Your task to perform on an android device: uninstall "eBay: The shopping marketplace" Image 0: 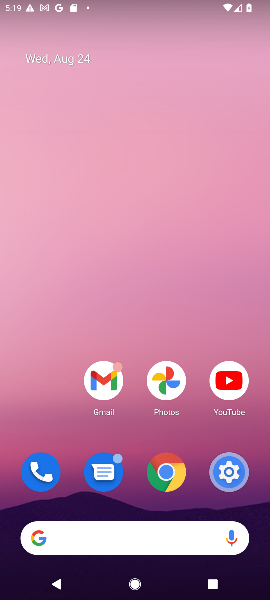
Step 0: drag from (144, 441) to (115, 8)
Your task to perform on an android device: uninstall "eBay: The shopping marketplace" Image 1: 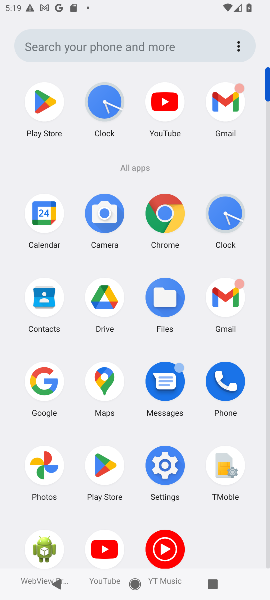
Step 1: click (46, 100)
Your task to perform on an android device: uninstall "eBay: The shopping marketplace" Image 2: 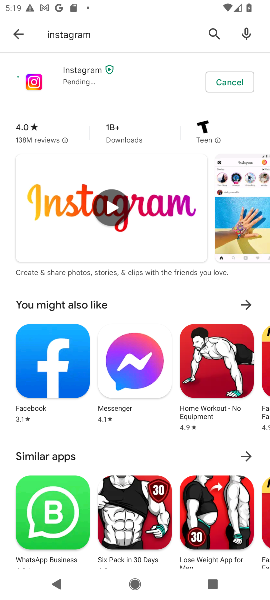
Step 2: click (218, 84)
Your task to perform on an android device: uninstall "eBay: The shopping marketplace" Image 3: 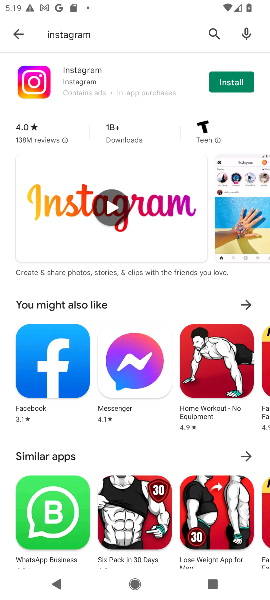
Step 3: click (18, 36)
Your task to perform on an android device: uninstall "eBay: The shopping marketplace" Image 4: 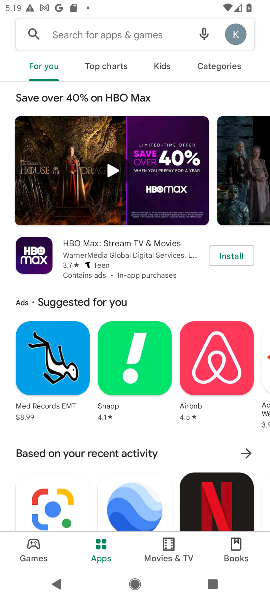
Step 4: click (96, 29)
Your task to perform on an android device: uninstall "eBay: The shopping marketplace" Image 5: 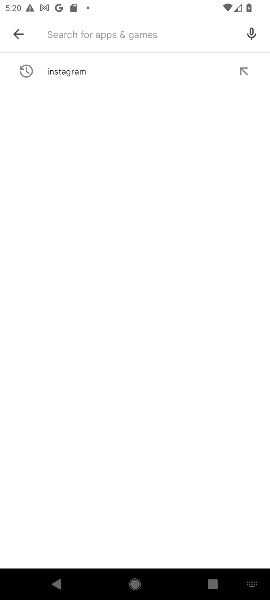
Step 5: type "eBay: The shopping marketplace"
Your task to perform on an android device: uninstall "eBay: The shopping marketplace" Image 6: 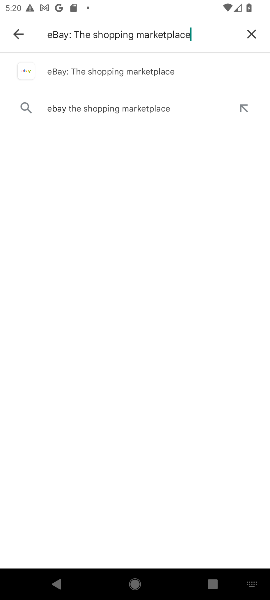
Step 6: click (72, 67)
Your task to perform on an android device: uninstall "eBay: The shopping marketplace" Image 7: 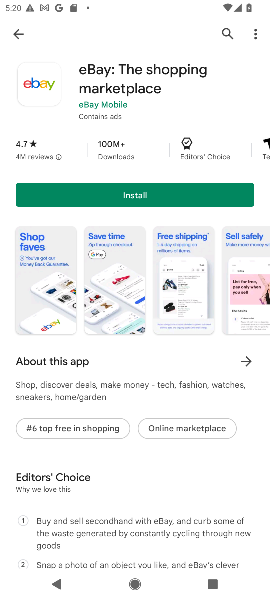
Step 7: task complete